Your task to perform on an android device: change the clock style Image 0: 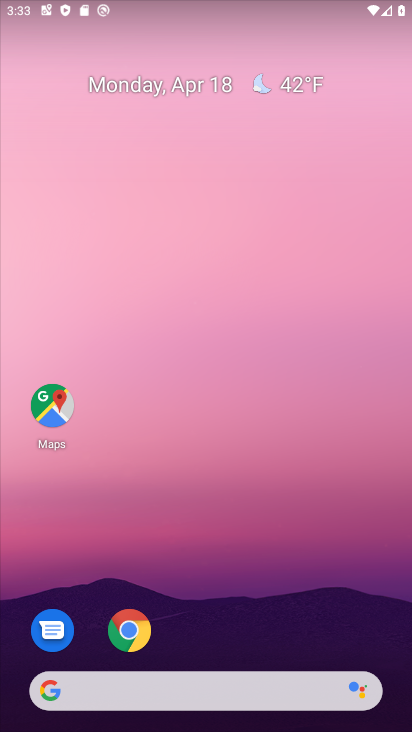
Step 0: drag from (364, 613) to (300, 169)
Your task to perform on an android device: change the clock style Image 1: 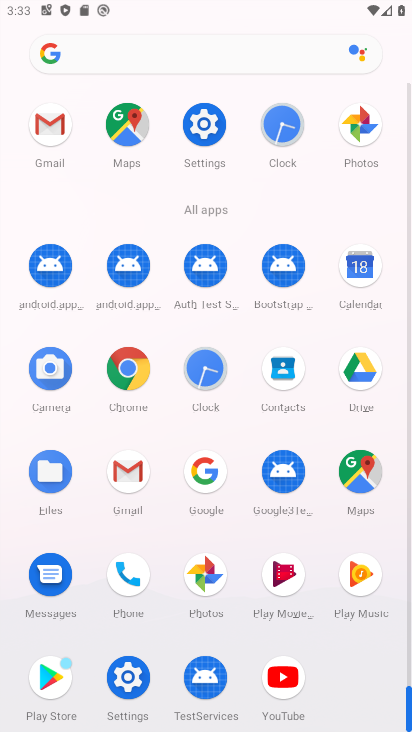
Step 1: click (205, 370)
Your task to perform on an android device: change the clock style Image 2: 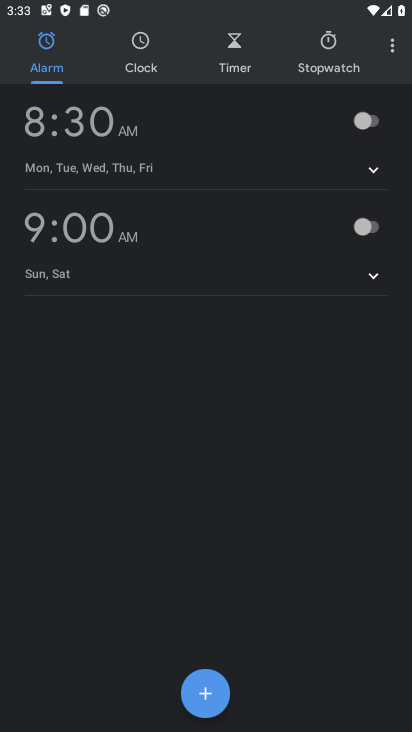
Step 2: click (396, 49)
Your task to perform on an android device: change the clock style Image 3: 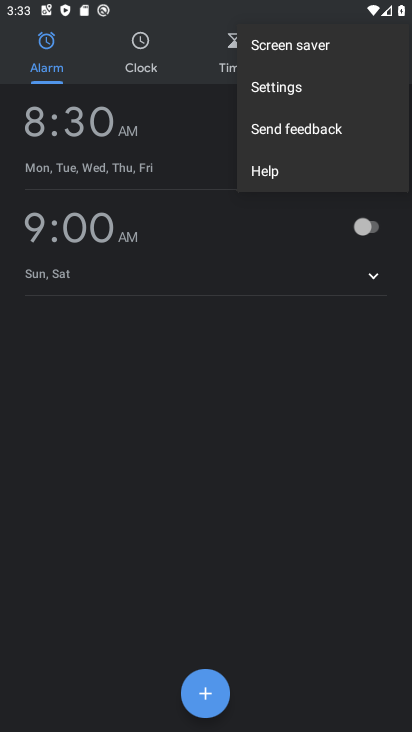
Step 3: click (286, 91)
Your task to perform on an android device: change the clock style Image 4: 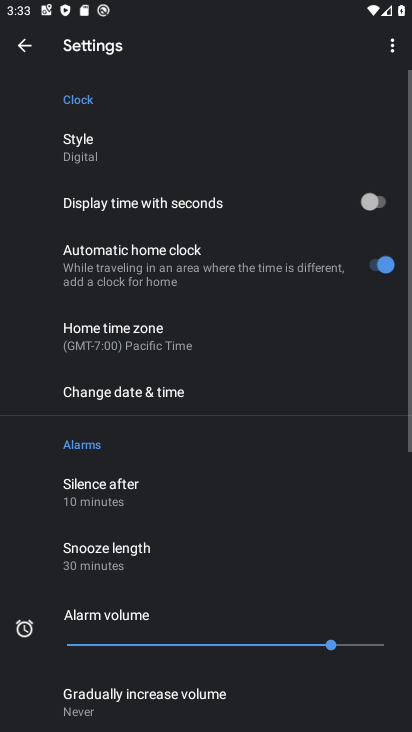
Step 4: click (95, 154)
Your task to perform on an android device: change the clock style Image 5: 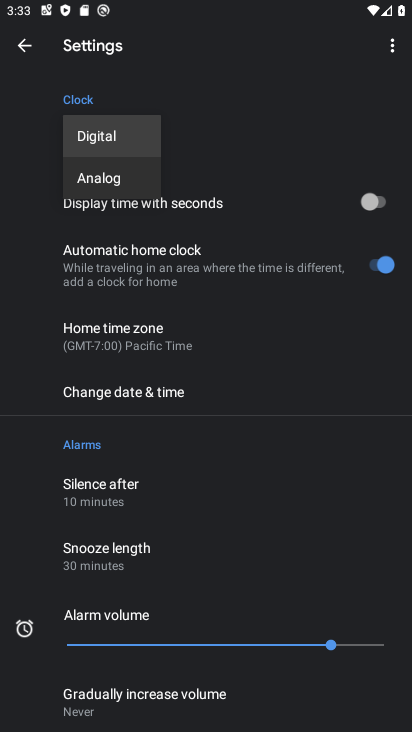
Step 5: click (116, 182)
Your task to perform on an android device: change the clock style Image 6: 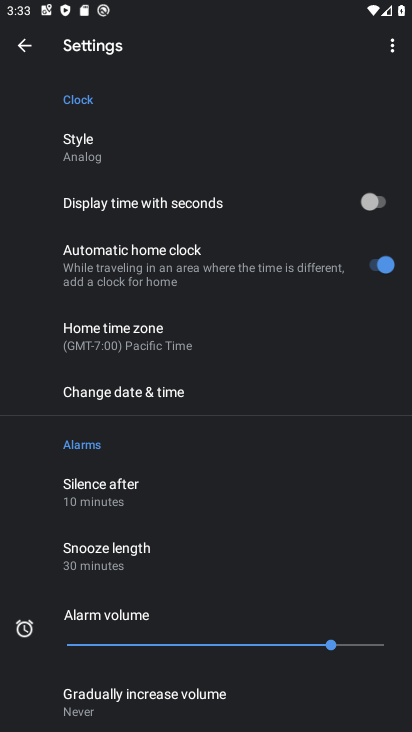
Step 6: task complete